Your task to perform on an android device: set default search engine in the chrome app Image 0: 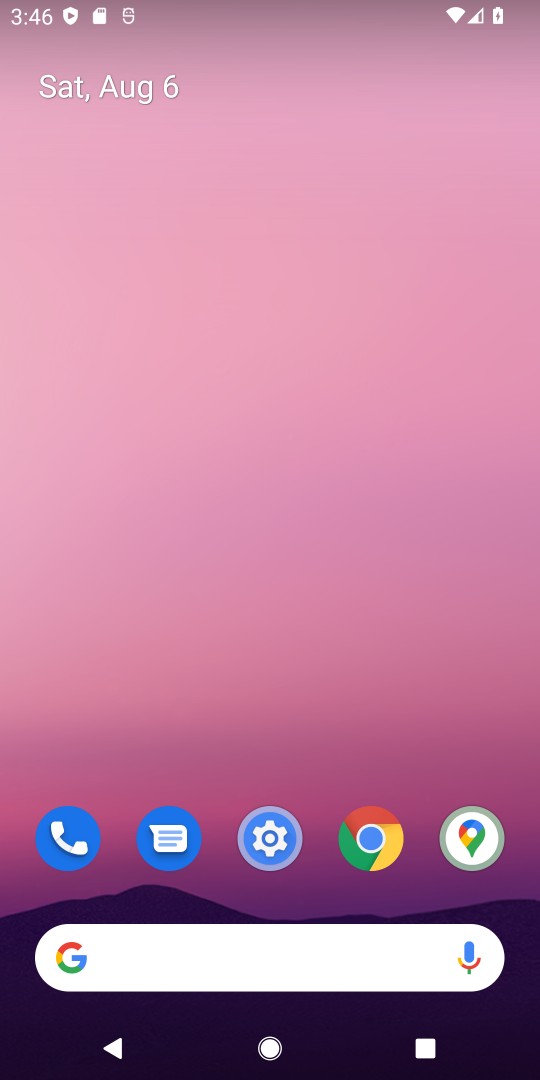
Step 0: drag from (244, 959) to (361, 118)
Your task to perform on an android device: set default search engine in the chrome app Image 1: 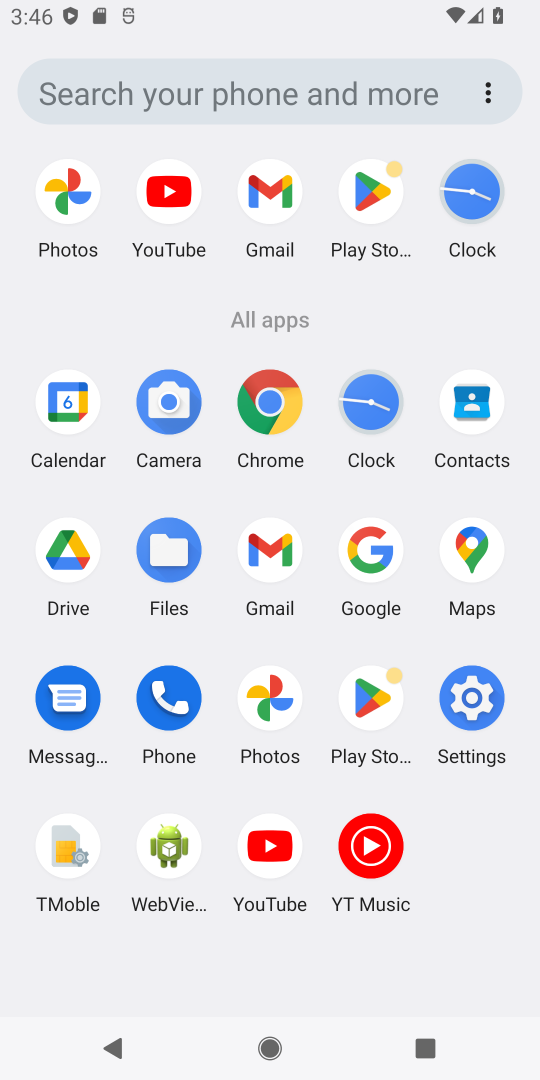
Step 1: click (269, 408)
Your task to perform on an android device: set default search engine in the chrome app Image 2: 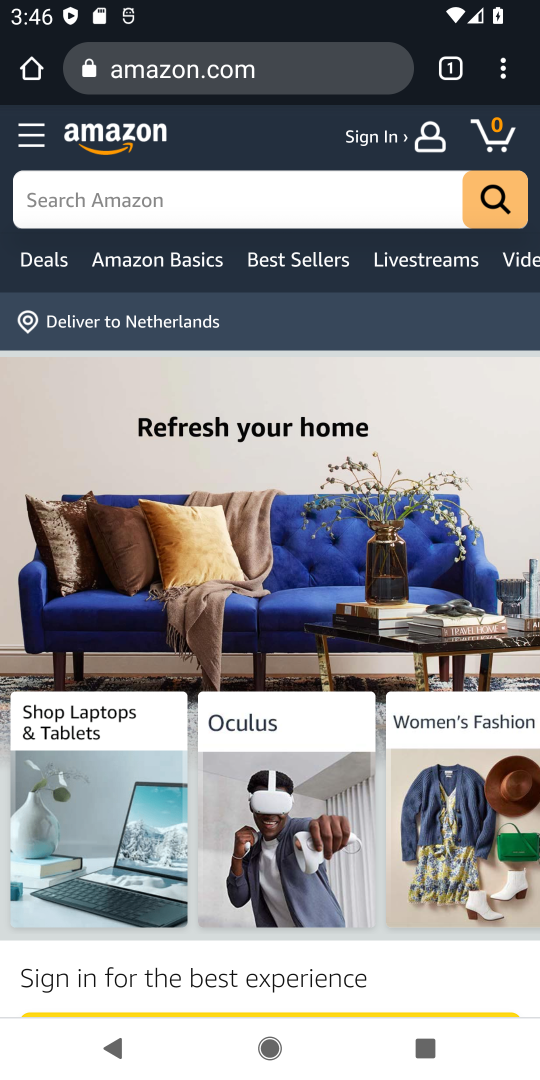
Step 2: click (501, 64)
Your task to perform on an android device: set default search engine in the chrome app Image 3: 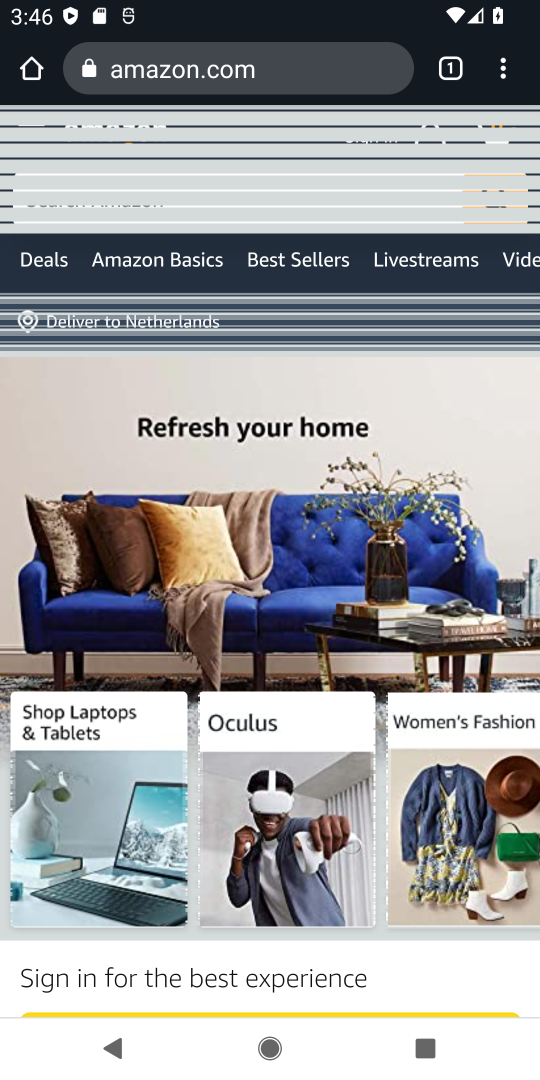
Step 3: click (500, 68)
Your task to perform on an android device: set default search engine in the chrome app Image 4: 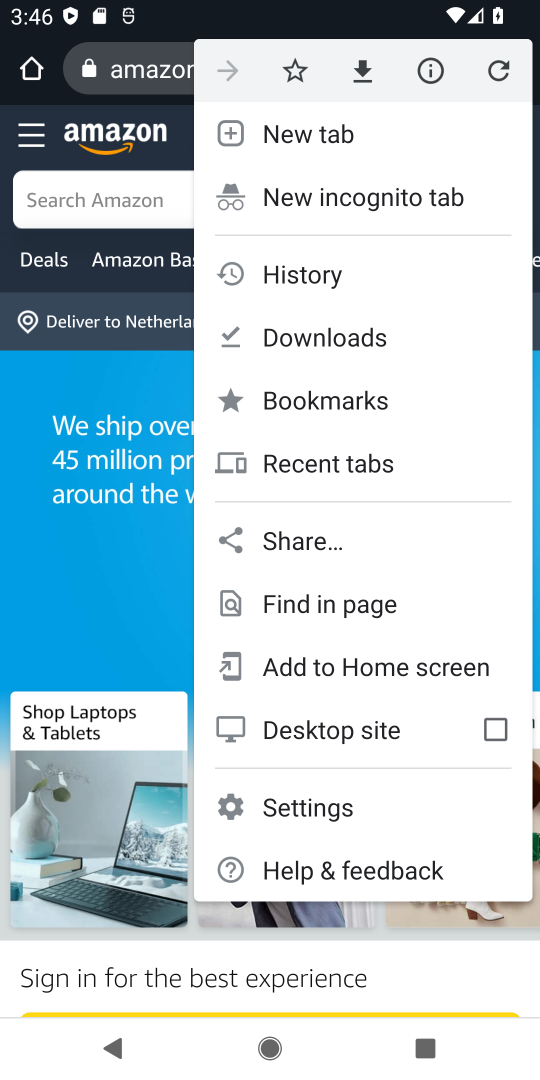
Step 4: click (291, 802)
Your task to perform on an android device: set default search engine in the chrome app Image 5: 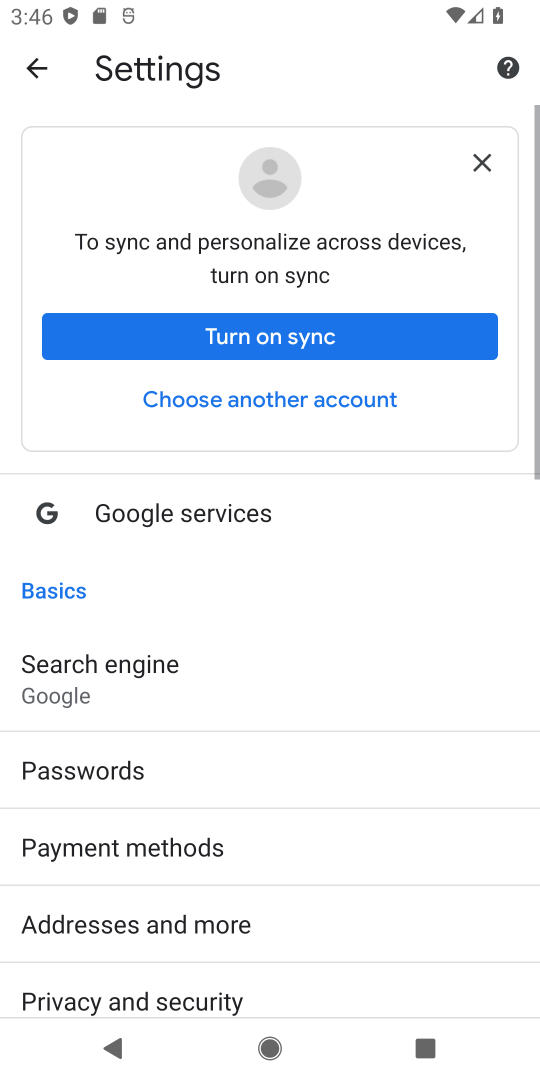
Step 5: click (154, 692)
Your task to perform on an android device: set default search engine in the chrome app Image 6: 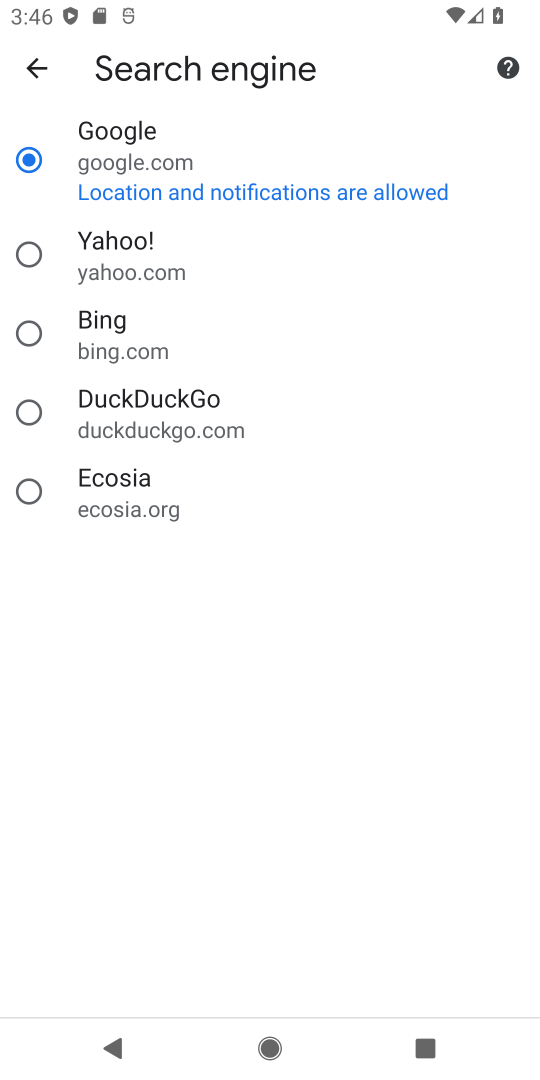
Step 6: task complete